Your task to perform on an android device: Go to ESPN.com Image 0: 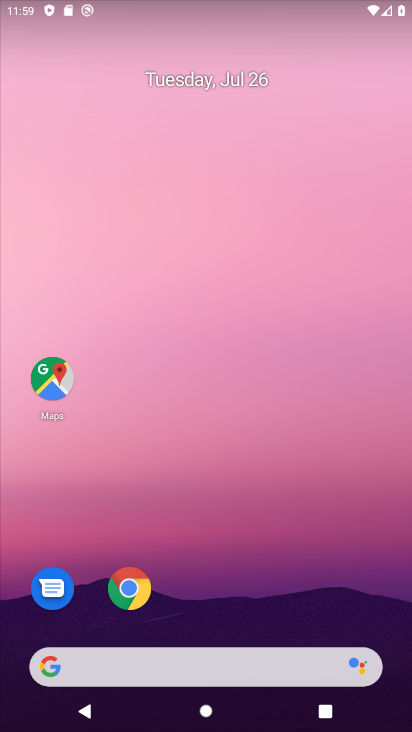
Step 0: click (82, 667)
Your task to perform on an android device: Go to ESPN.com Image 1: 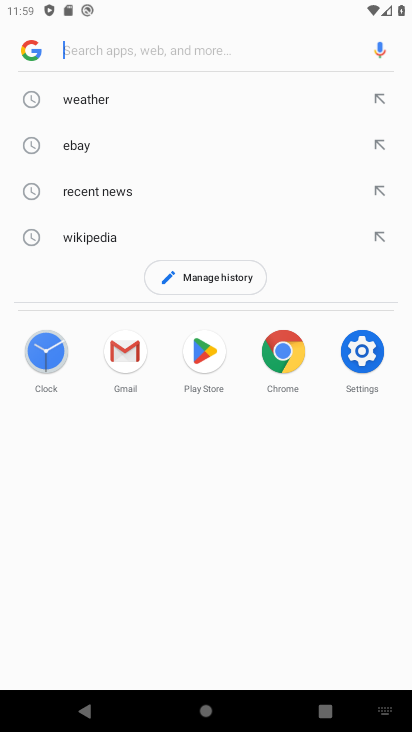
Step 1: type "ESPN.com"
Your task to perform on an android device: Go to ESPN.com Image 2: 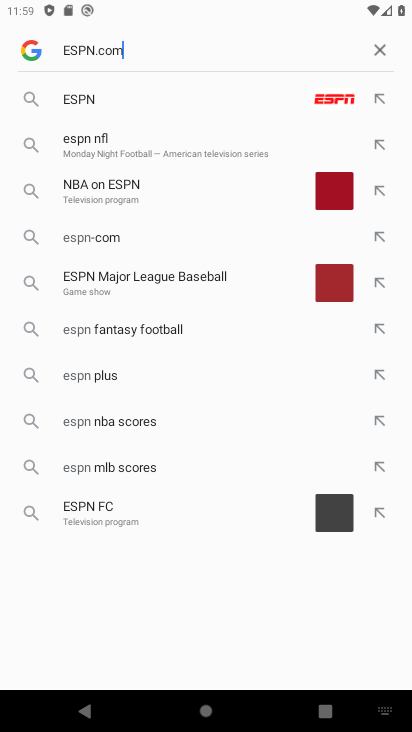
Step 2: type ""
Your task to perform on an android device: Go to ESPN.com Image 3: 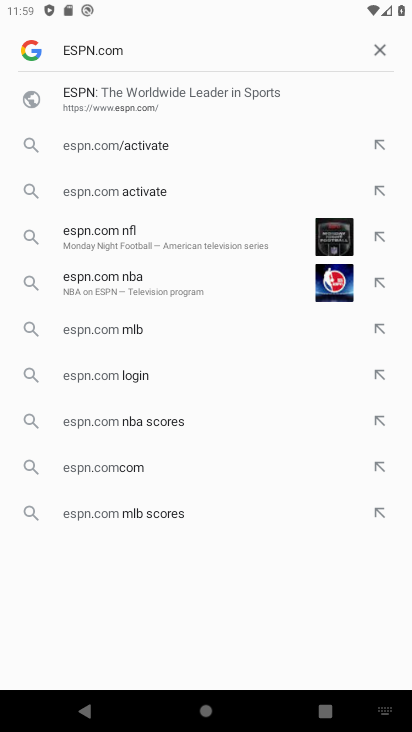
Step 3: click (83, 94)
Your task to perform on an android device: Go to ESPN.com Image 4: 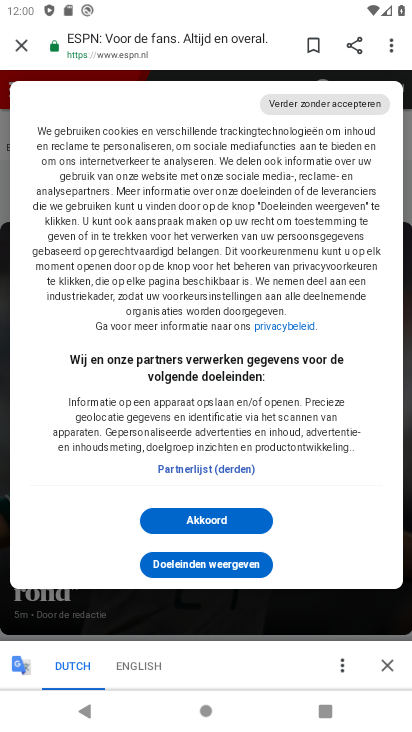
Step 4: task complete